Your task to perform on an android device: see creations saved in the google photos Image 0: 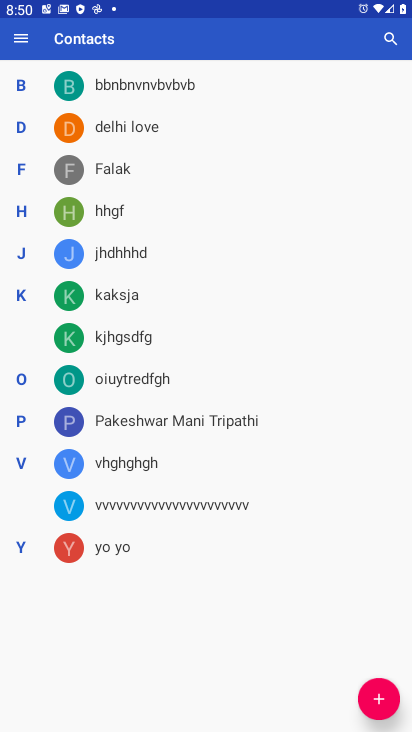
Step 0: press home button
Your task to perform on an android device: see creations saved in the google photos Image 1: 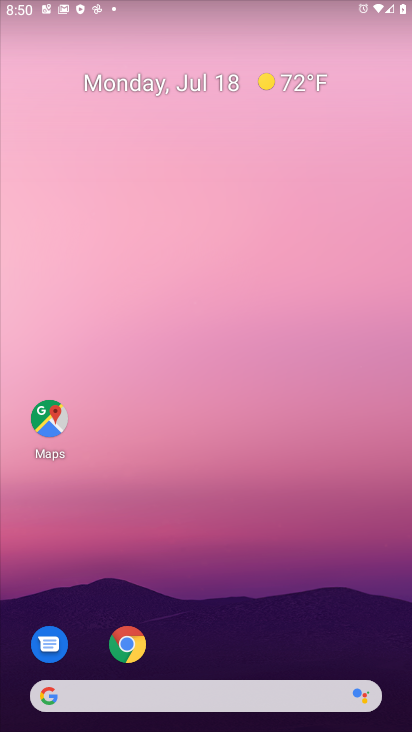
Step 1: drag from (342, 555) to (188, 40)
Your task to perform on an android device: see creations saved in the google photos Image 2: 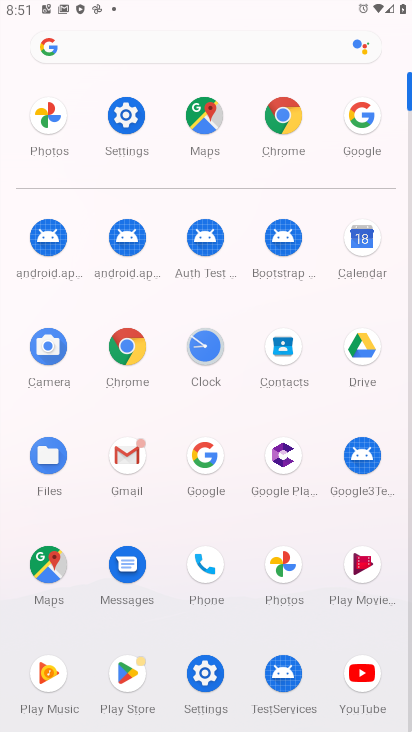
Step 2: click (280, 569)
Your task to perform on an android device: see creations saved in the google photos Image 3: 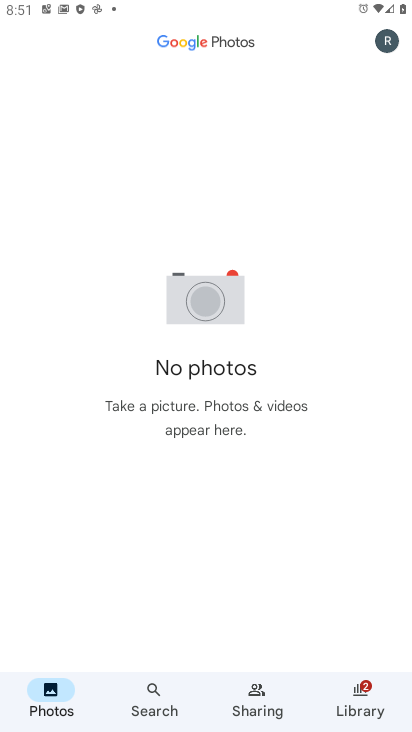
Step 3: click (147, 692)
Your task to perform on an android device: see creations saved in the google photos Image 4: 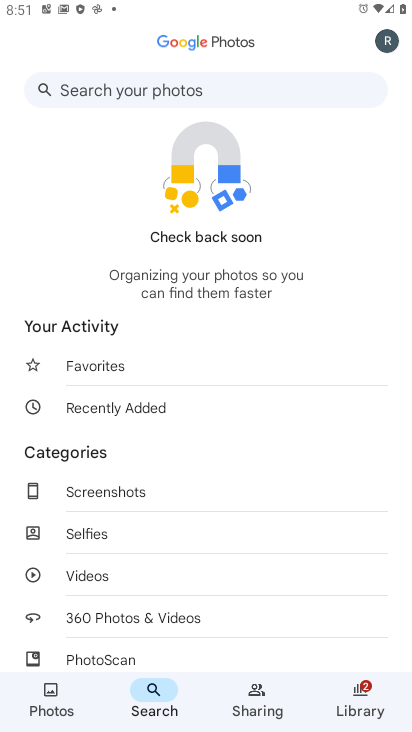
Step 4: drag from (80, 610) to (77, 169)
Your task to perform on an android device: see creations saved in the google photos Image 5: 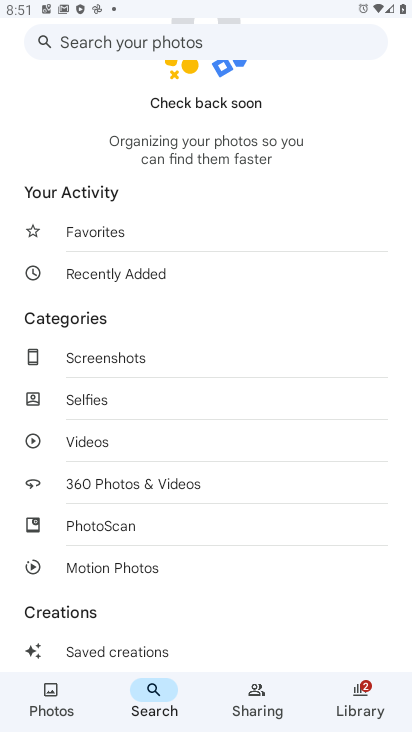
Step 5: click (82, 644)
Your task to perform on an android device: see creations saved in the google photos Image 6: 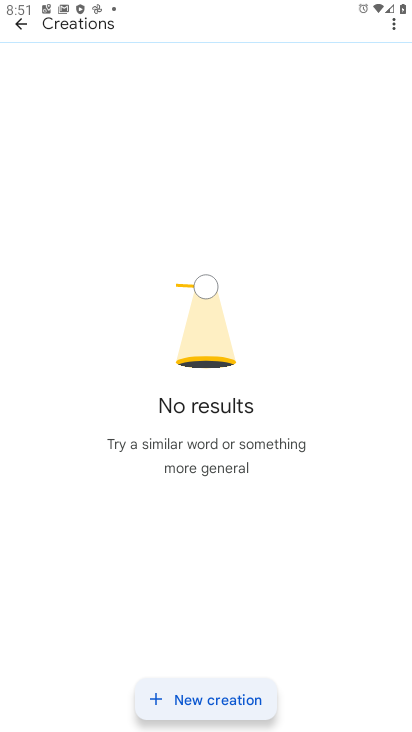
Step 6: task complete